Your task to perform on an android device: What's the weather today? Image 0: 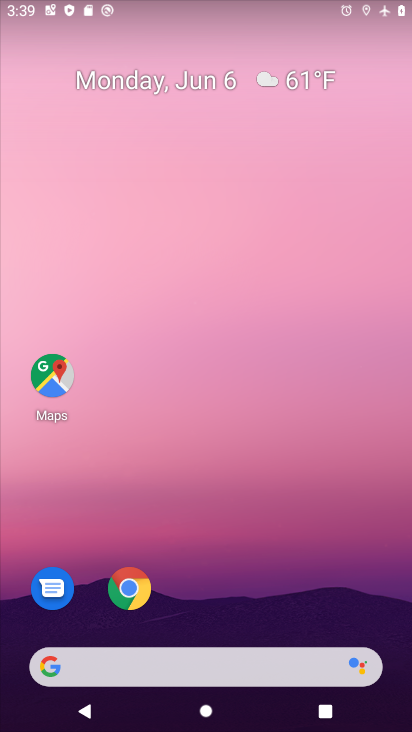
Step 0: drag from (236, 499) to (241, 193)
Your task to perform on an android device: What's the weather today? Image 1: 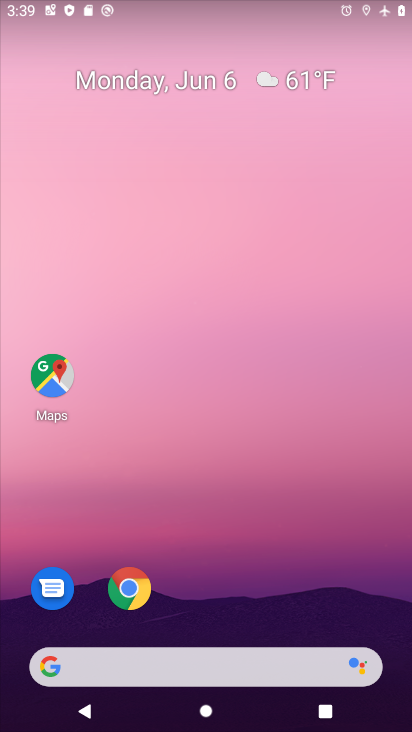
Step 1: click (193, 675)
Your task to perform on an android device: What's the weather today? Image 2: 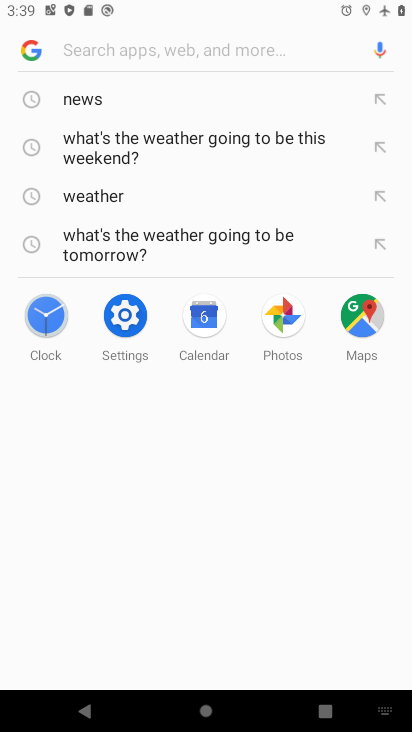
Step 2: click (118, 205)
Your task to perform on an android device: What's the weather today? Image 3: 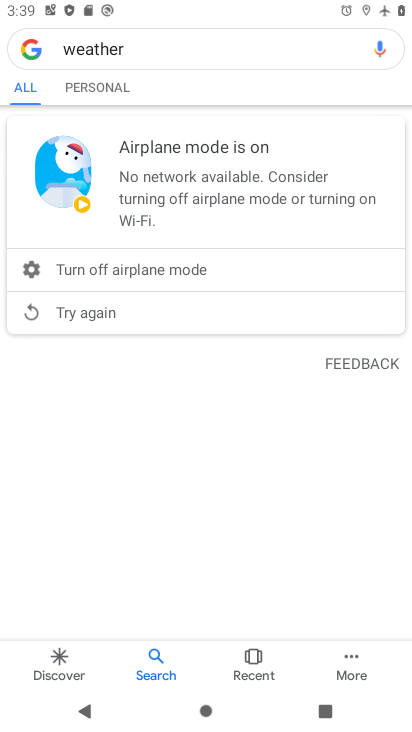
Step 3: task complete